Your task to perform on an android device: turn on improve location accuracy Image 0: 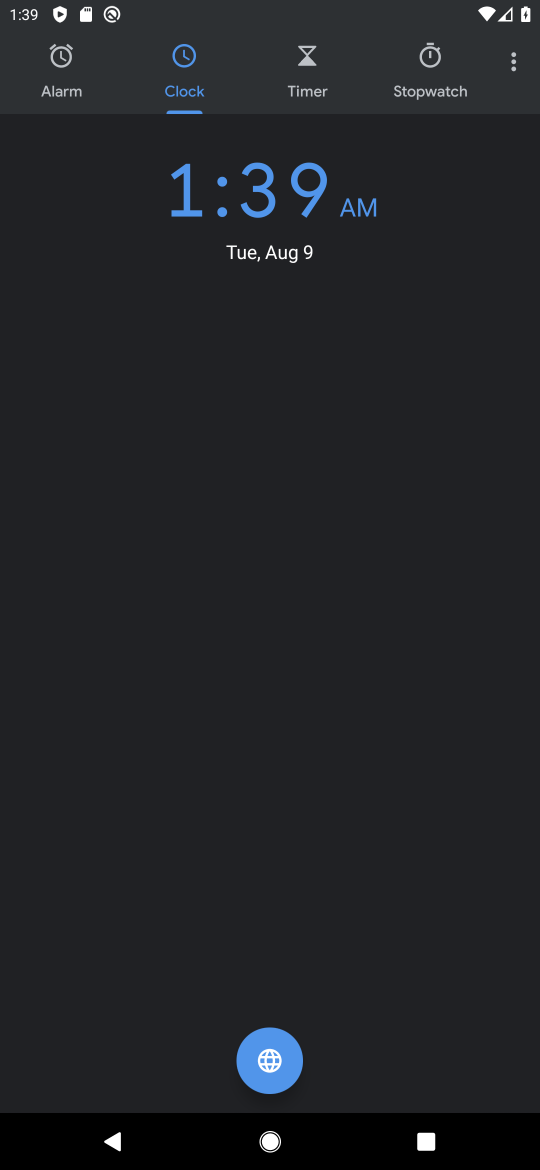
Step 0: press home button
Your task to perform on an android device: turn on improve location accuracy Image 1: 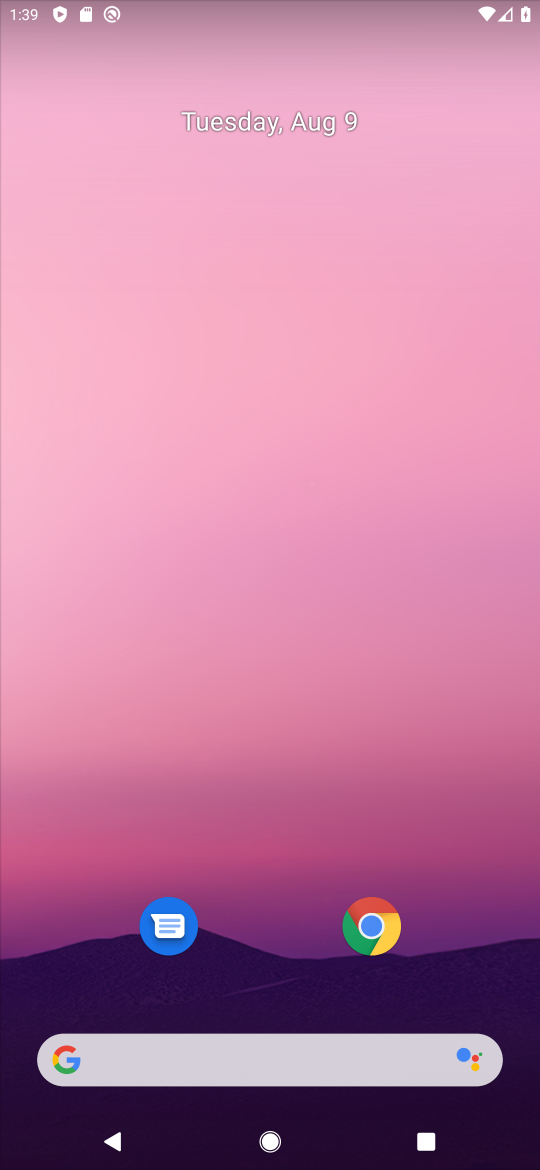
Step 1: drag from (275, 949) to (386, 260)
Your task to perform on an android device: turn on improve location accuracy Image 2: 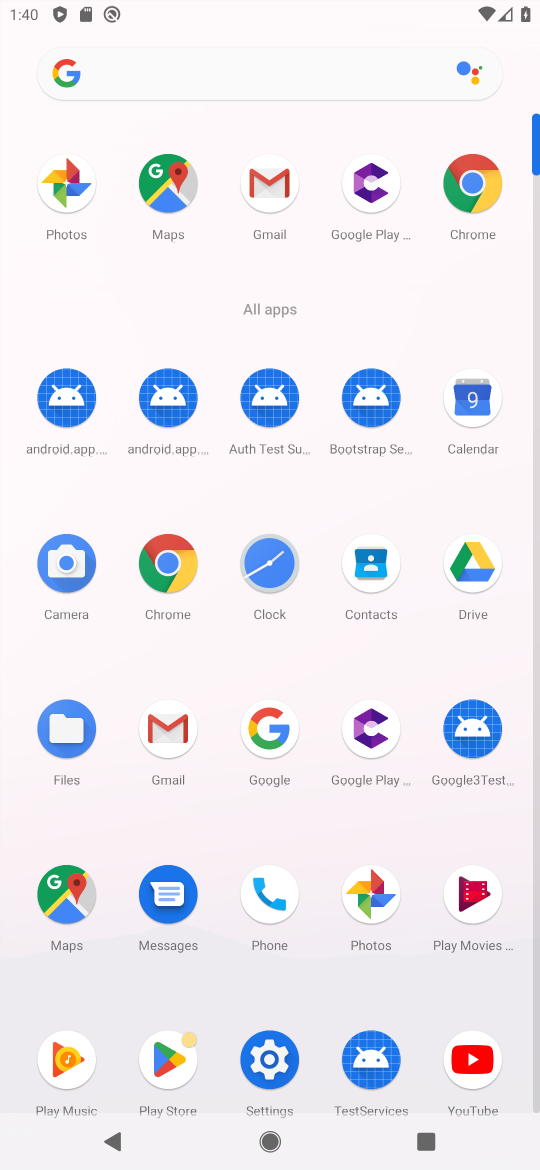
Step 2: click (265, 1066)
Your task to perform on an android device: turn on improve location accuracy Image 3: 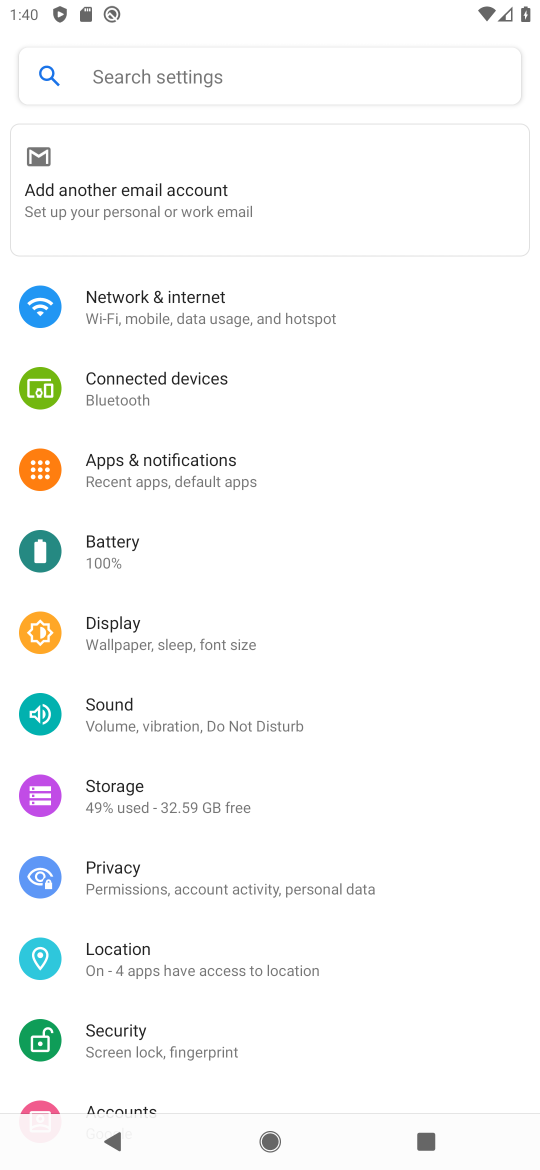
Step 3: drag from (183, 1073) to (243, 466)
Your task to perform on an android device: turn on improve location accuracy Image 4: 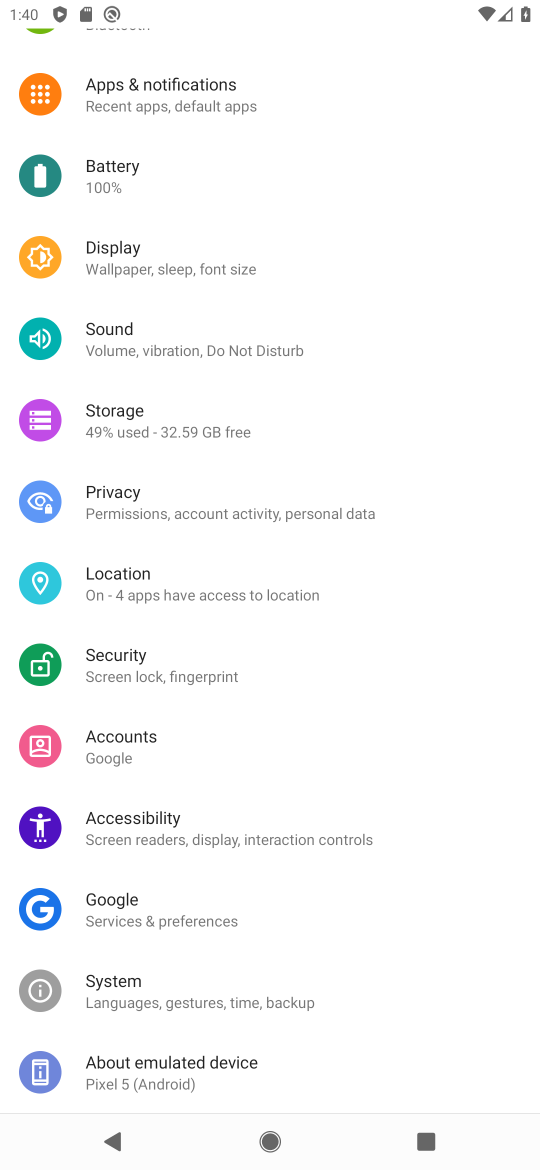
Step 4: click (174, 571)
Your task to perform on an android device: turn on improve location accuracy Image 5: 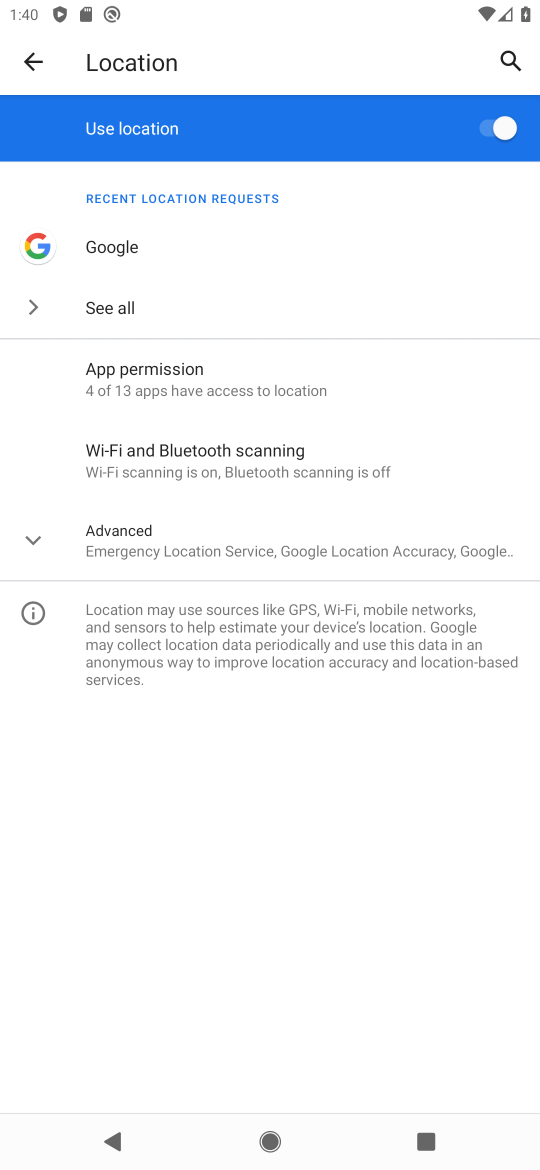
Step 5: click (182, 542)
Your task to perform on an android device: turn on improve location accuracy Image 6: 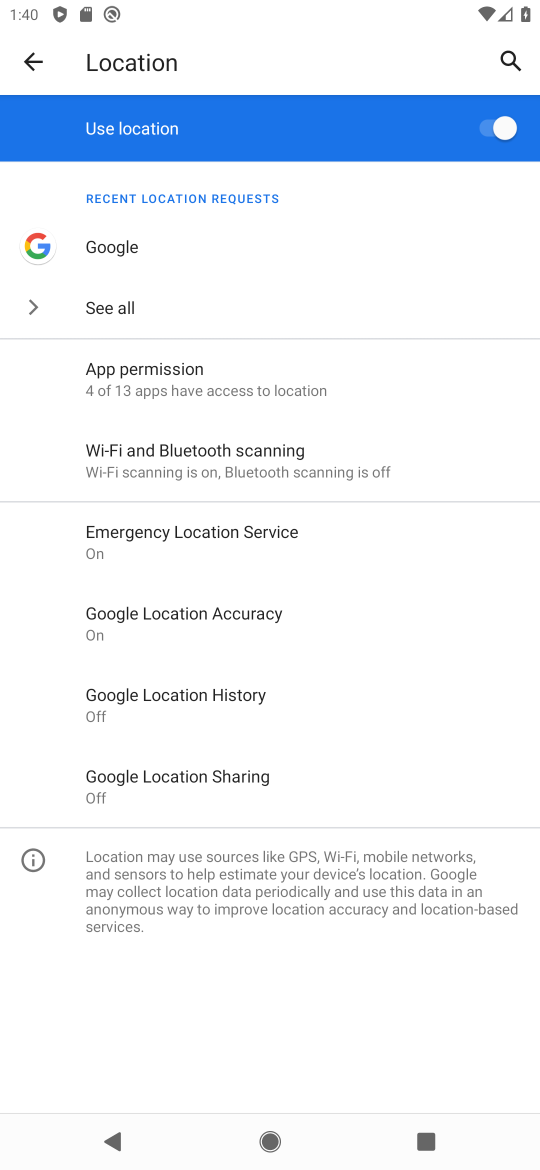
Step 6: click (159, 635)
Your task to perform on an android device: turn on improve location accuracy Image 7: 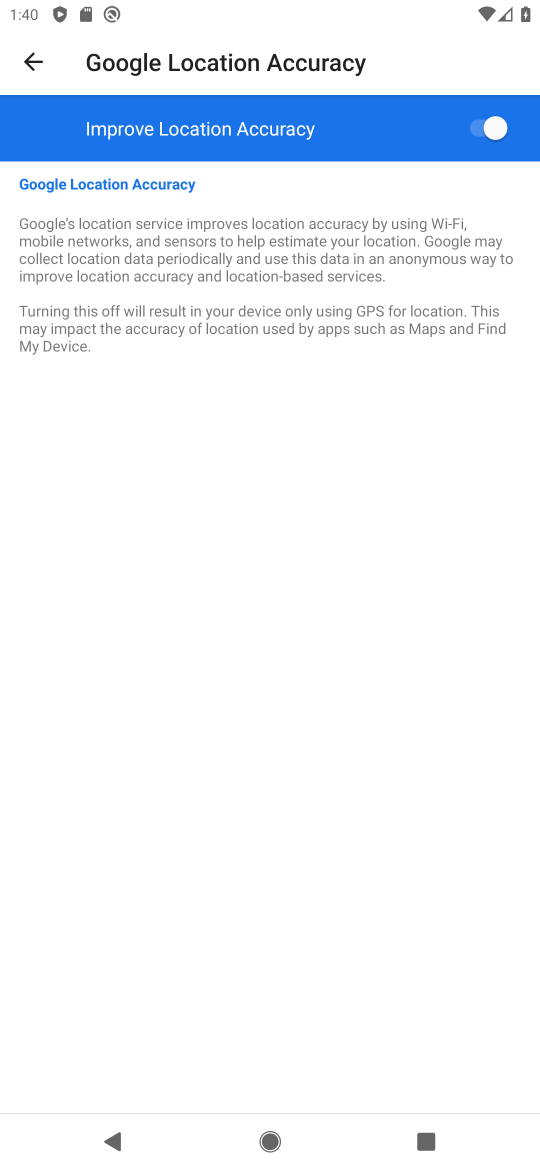
Step 7: task complete